Your task to perform on an android device: Open the calendar and show me this week's events? Image 0: 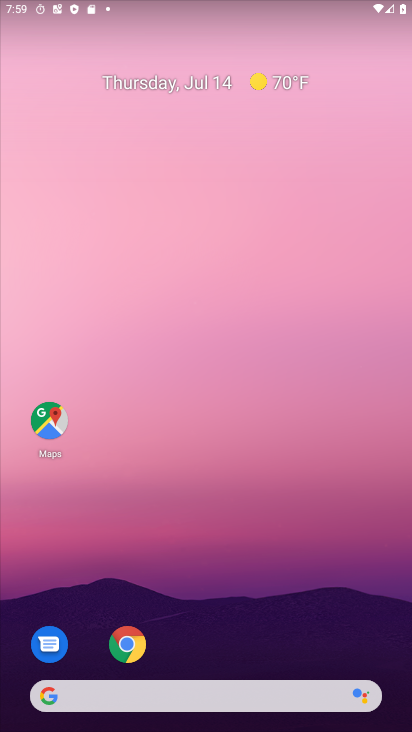
Step 0: drag from (103, 690) to (171, 369)
Your task to perform on an android device: Open the calendar and show me this week's events? Image 1: 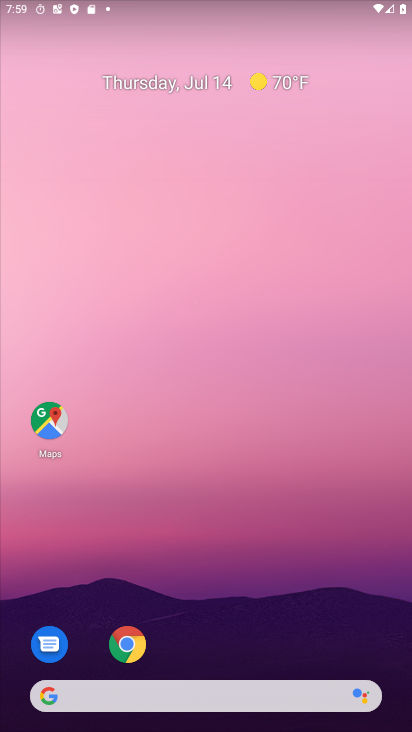
Step 1: drag from (217, 693) to (313, 208)
Your task to perform on an android device: Open the calendar and show me this week's events? Image 2: 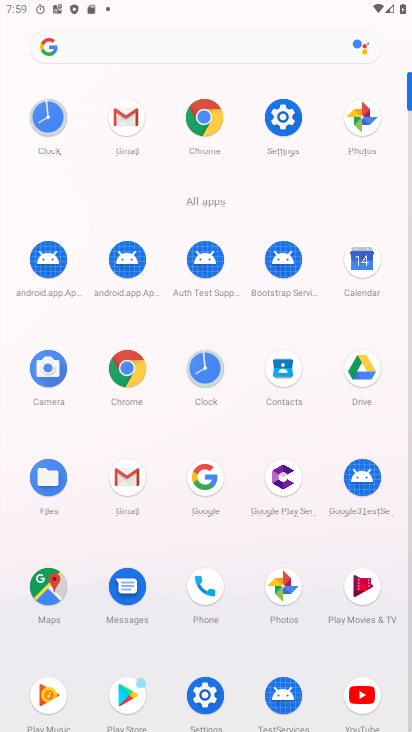
Step 2: click (363, 261)
Your task to perform on an android device: Open the calendar and show me this week's events? Image 3: 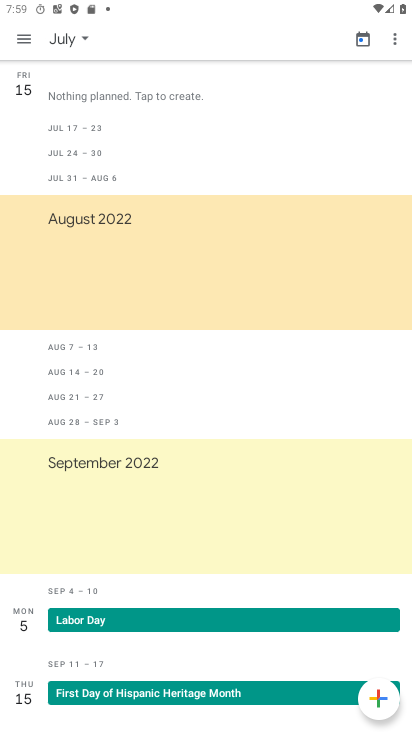
Step 3: click (75, 38)
Your task to perform on an android device: Open the calendar and show me this week's events? Image 4: 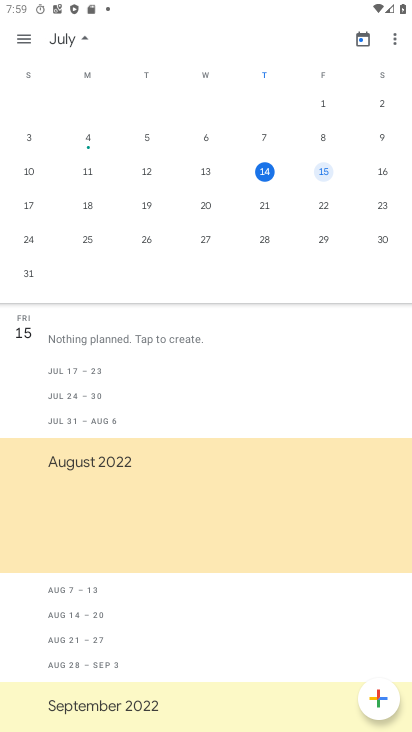
Step 4: click (266, 175)
Your task to perform on an android device: Open the calendar and show me this week's events? Image 5: 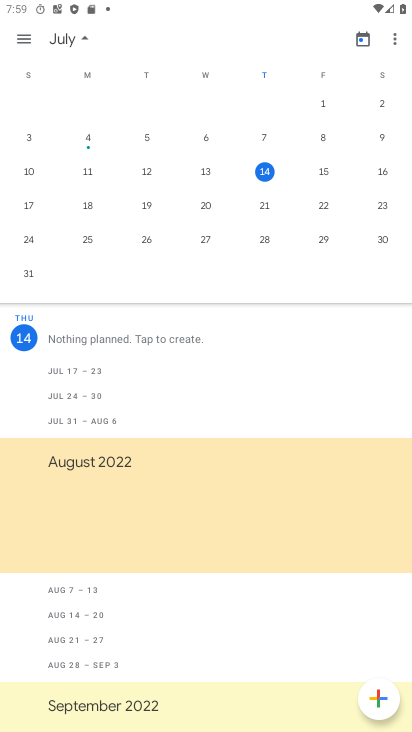
Step 5: click (27, 43)
Your task to perform on an android device: Open the calendar and show me this week's events? Image 6: 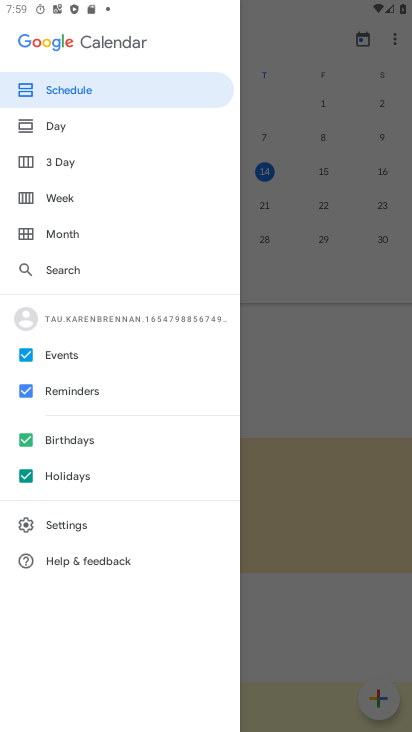
Step 6: click (66, 201)
Your task to perform on an android device: Open the calendar and show me this week's events? Image 7: 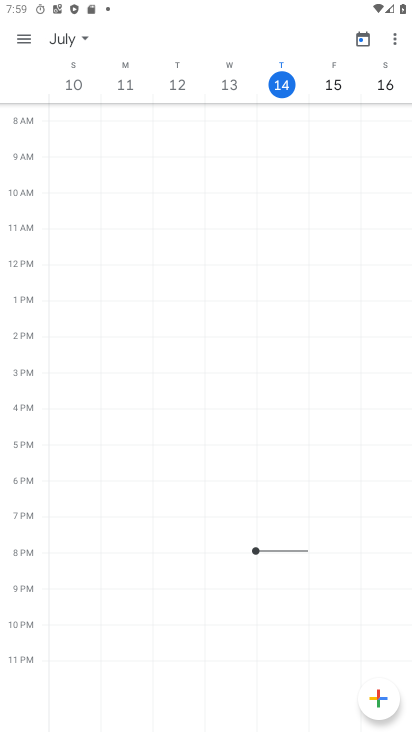
Step 7: click (34, 41)
Your task to perform on an android device: Open the calendar and show me this week's events? Image 8: 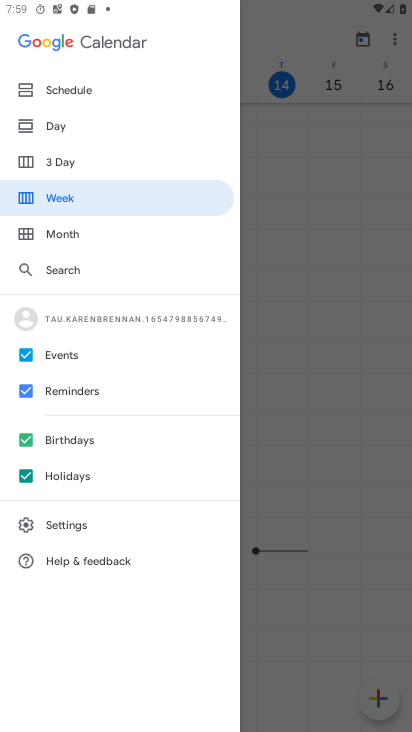
Step 8: click (99, 98)
Your task to perform on an android device: Open the calendar and show me this week's events? Image 9: 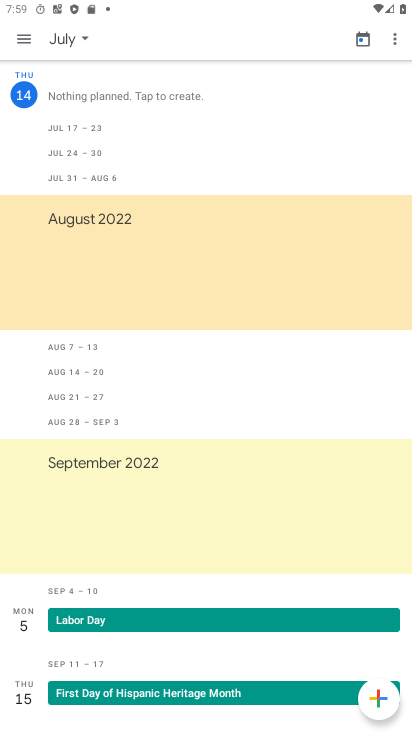
Step 9: task complete